Your task to perform on an android device: Open Google Maps and go to "Timeline" Image 0: 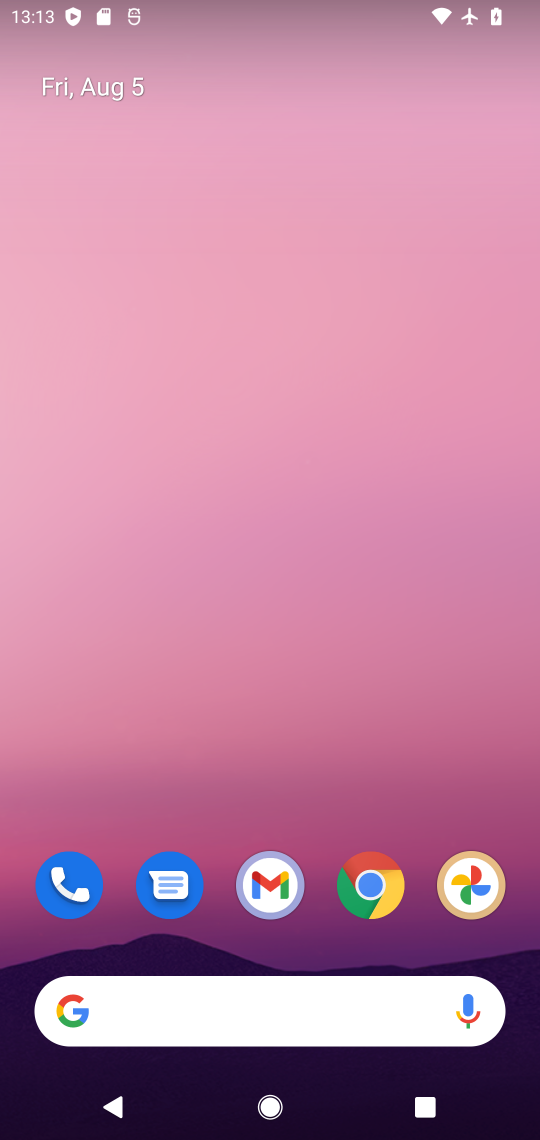
Step 0: drag from (248, 916) to (248, 20)
Your task to perform on an android device: Open Google Maps and go to "Timeline" Image 1: 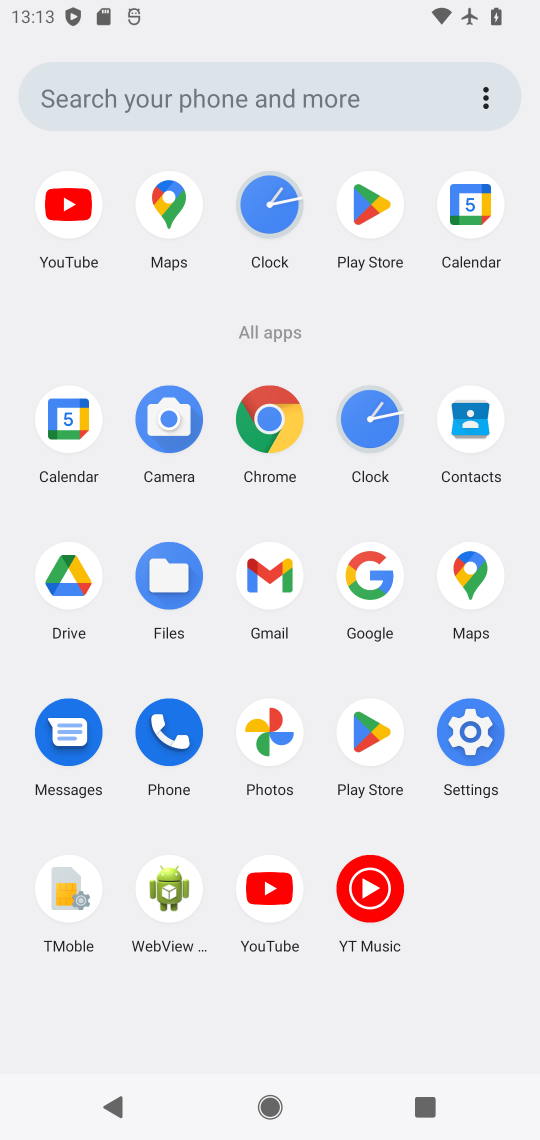
Step 1: click (168, 208)
Your task to perform on an android device: Open Google Maps and go to "Timeline" Image 2: 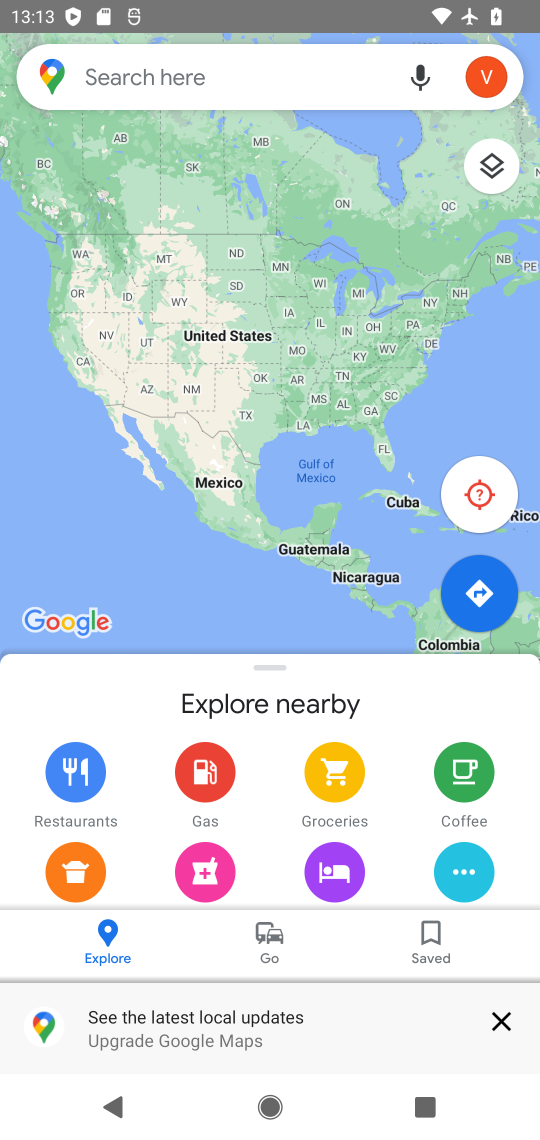
Step 2: click (47, 84)
Your task to perform on an android device: Open Google Maps and go to "Timeline" Image 3: 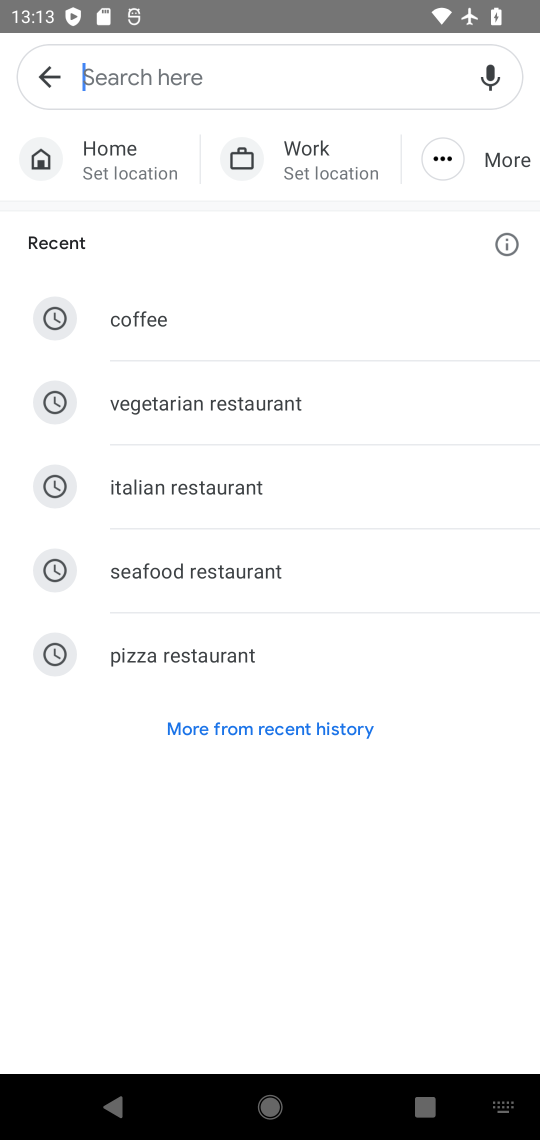
Step 3: click (47, 84)
Your task to perform on an android device: Open Google Maps and go to "Timeline" Image 4: 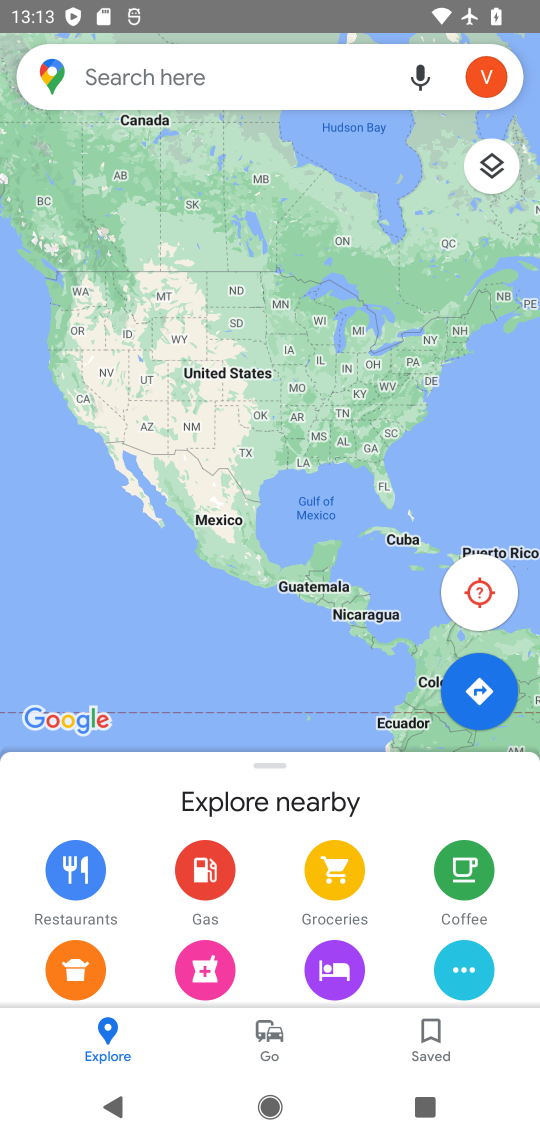
Step 4: click (484, 88)
Your task to perform on an android device: Open Google Maps and go to "Timeline" Image 5: 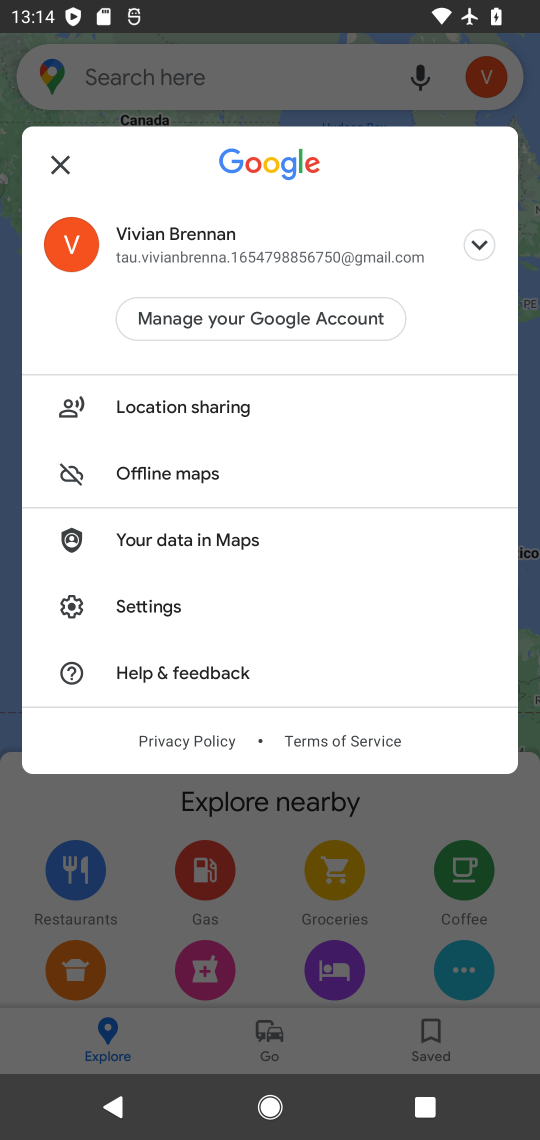
Step 5: task complete